Your task to perform on an android device: toggle javascript in the chrome app Image 0: 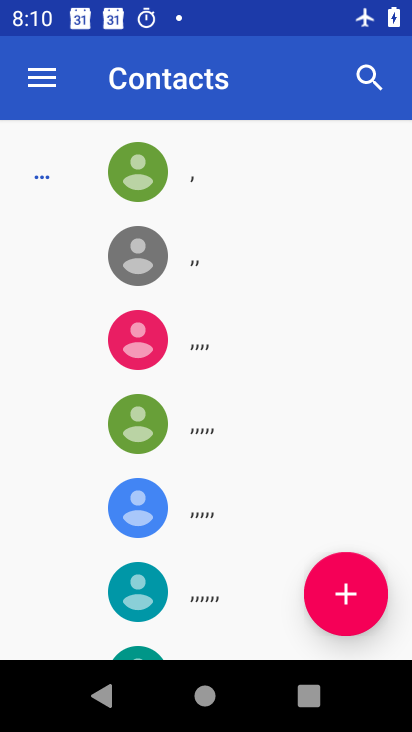
Step 0: press home button
Your task to perform on an android device: toggle javascript in the chrome app Image 1: 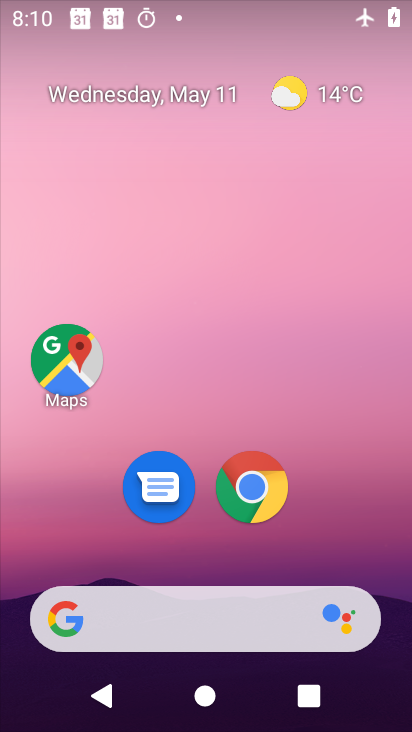
Step 1: click (254, 484)
Your task to perform on an android device: toggle javascript in the chrome app Image 2: 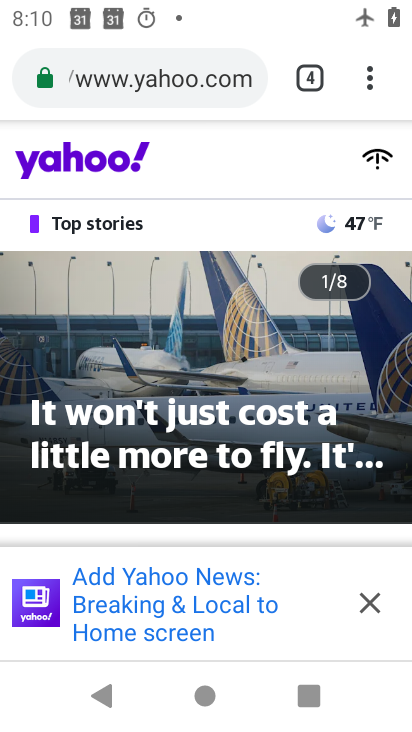
Step 2: click (367, 87)
Your task to perform on an android device: toggle javascript in the chrome app Image 3: 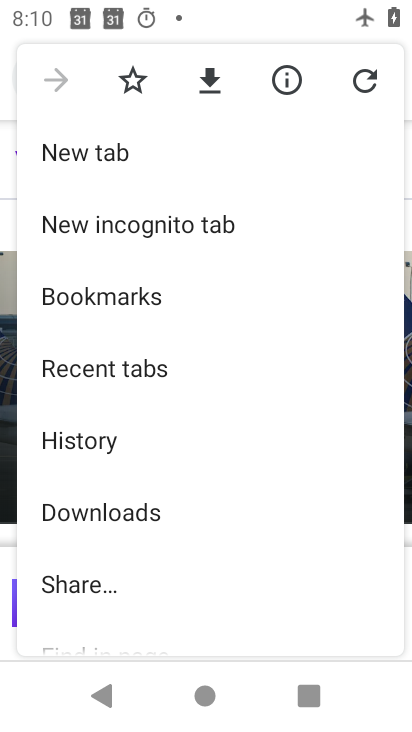
Step 3: drag from (141, 616) to (141, 245)
Your task to perform on an android device: toggle javascript in the chrome app Image 4: 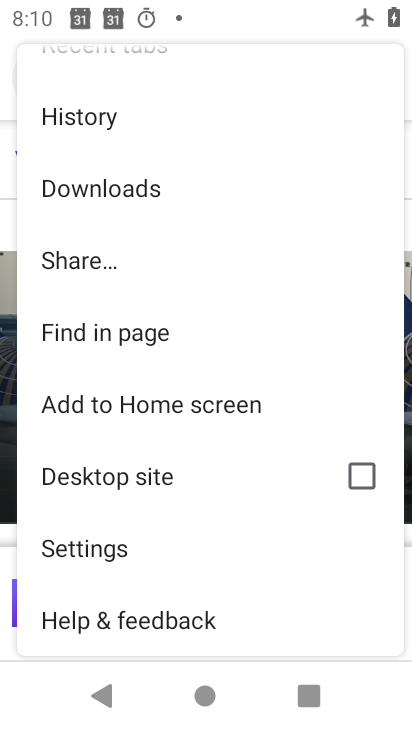
Step 4: click (88, 549)
Your task to perform on an android device: toggle javascript in the chrome app Image 5: 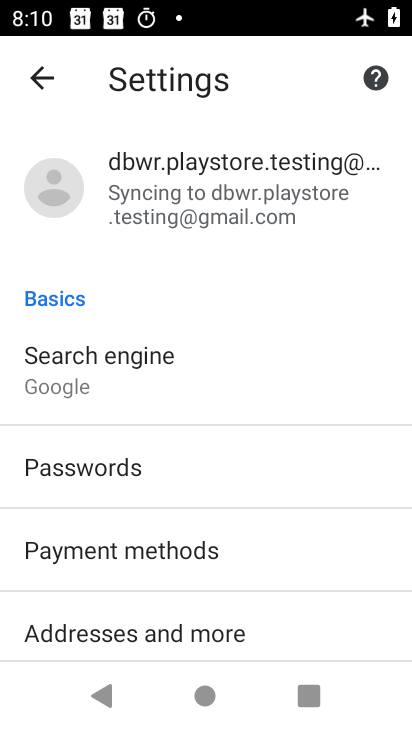
Step 5: drag from (103, 613) to (146, 339)
Your task to perform on an android device: toggle javascript in the chrome app Image 6: 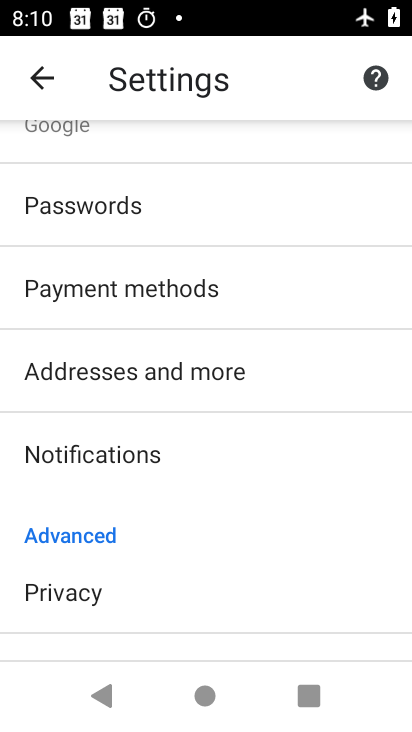
Step 6: drag from (147, 577) to (159, 311)
Your task to perform on an android device: toggle javascript in the chrome app Image 7: 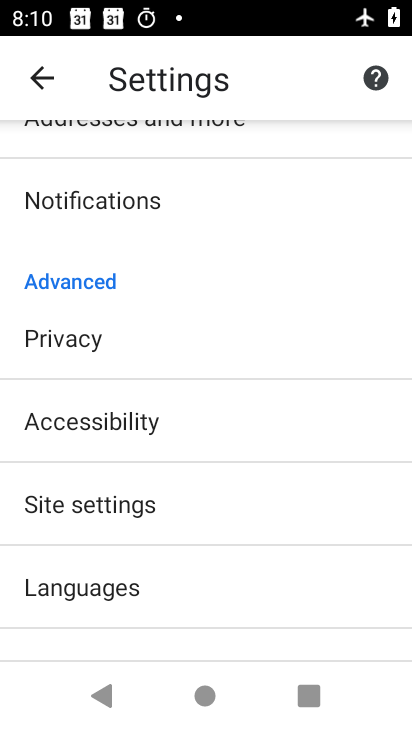
Step 7: click (100, 502)
Your task to perform on an android device: toggle javascript in the chrome app Image 8: 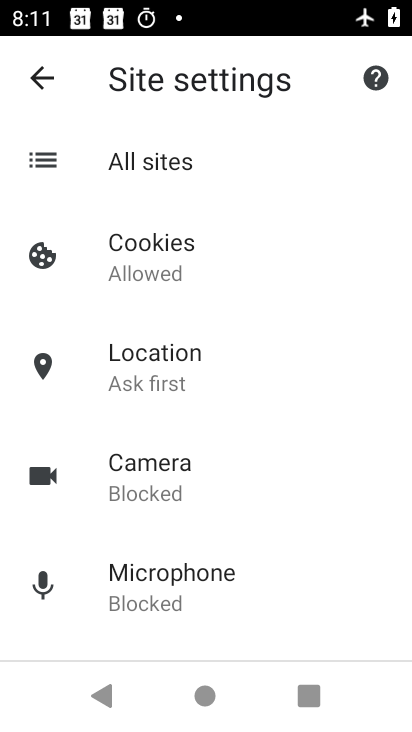
Step 8: drag from (173, 623) to (224, 247)
Your task to perform on an android device: toggle javascript in the chrome app Image 9: 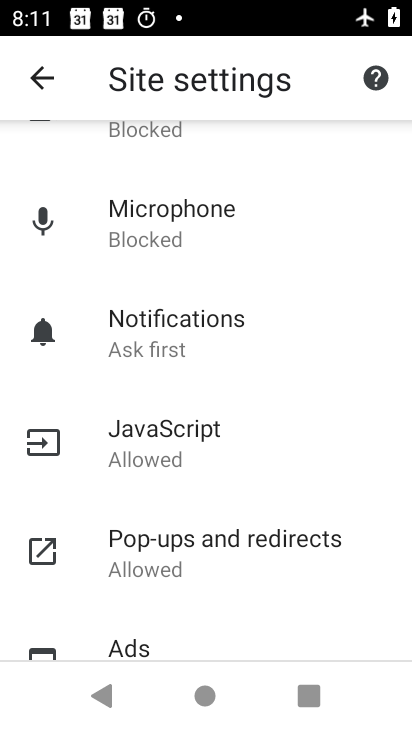
Step 9: click (179, 439)
Your task to perform on an android device: toggle javascript in the chrome app Image 10: 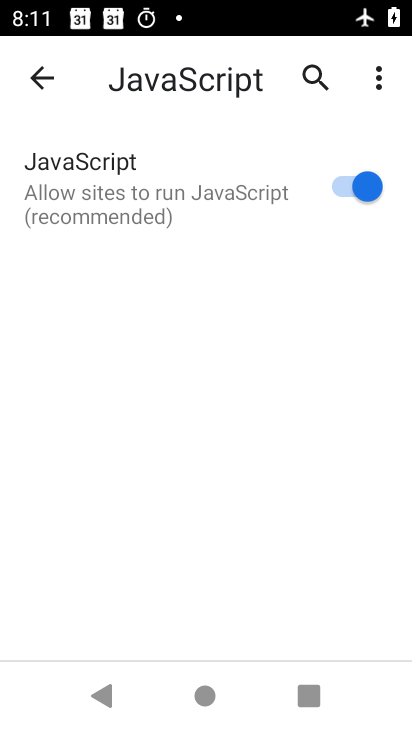
Step 10: click (342, 183)
Your task to perform on an android device: toggle javascript in the chrome app Image 11: 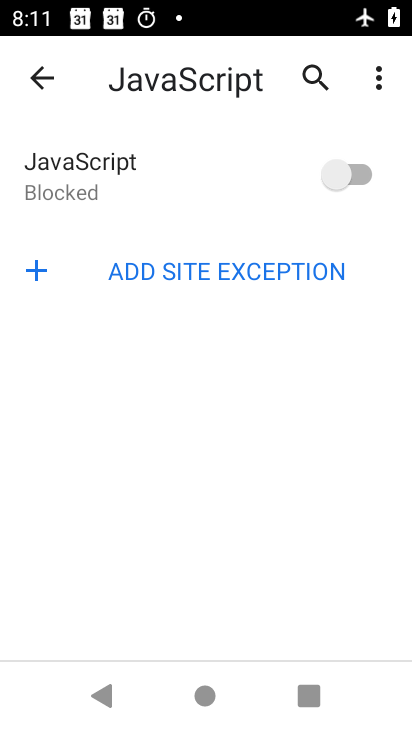
Step 11: task complete